Your task to perform on an android device: Search for a new desk on IKEA. Image 0: 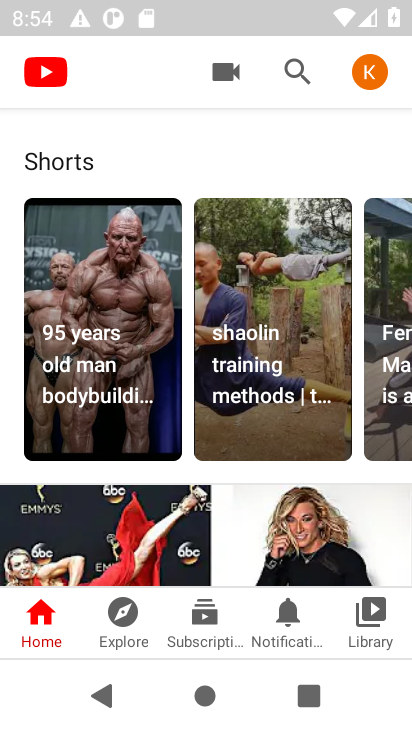
Step 0: click (43, 292)
Your task to perform on an android device: Search for a new desk on IKEA. Image 1: 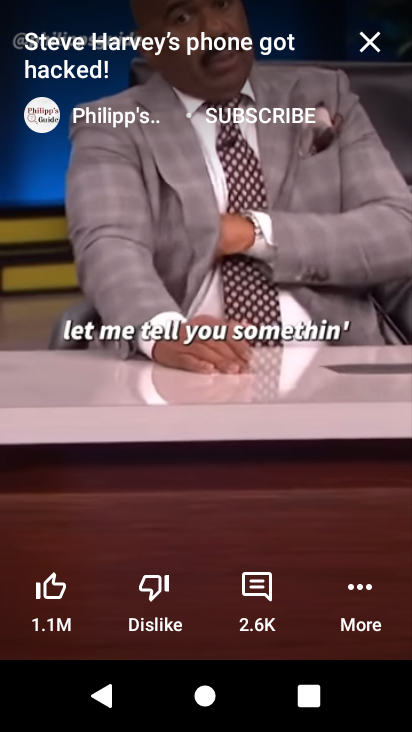
Step 1: task complete